Your task to perform on an android device: Add razer deathadder to the cart on walmart, then select checkout. Image 0: 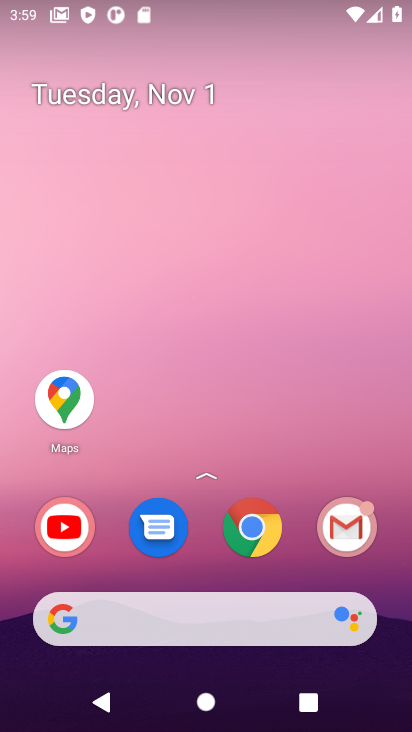
Step 0: click (178, 613)
Your task to perform on an android device: Add razer deathadder to the cart on walmart, then select checkout. Image 1: 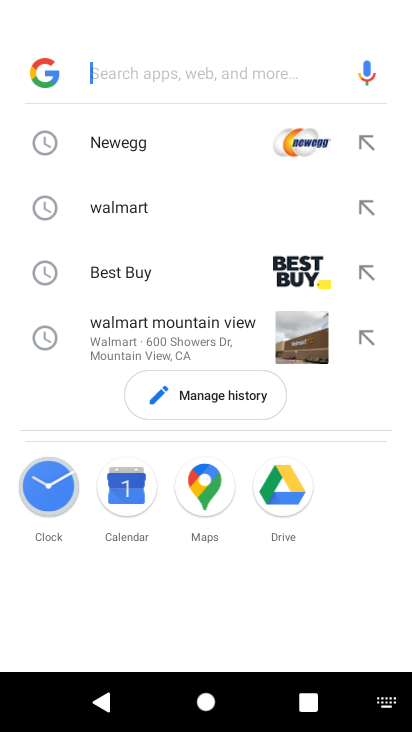
Step 1: click (141, 204)
Your task to perform on an android device: Add razer deathadder to the cart on walmart, then select checkout. Image 2: 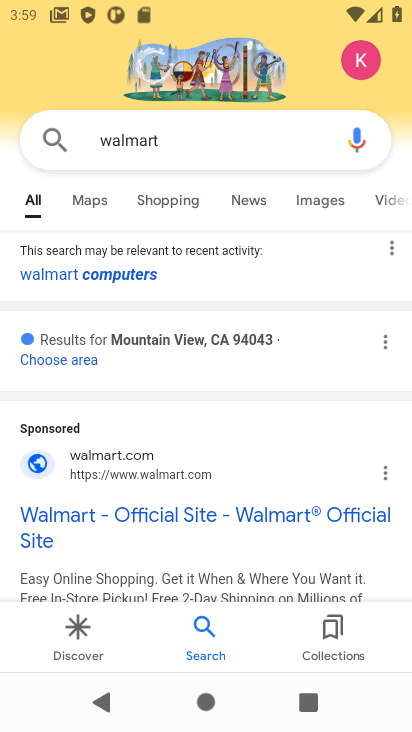
Step 2: click (114, 470)
Your task to perform on an android device: Add razer deathadder to the cart on walmart, then select checkout. Image 3: 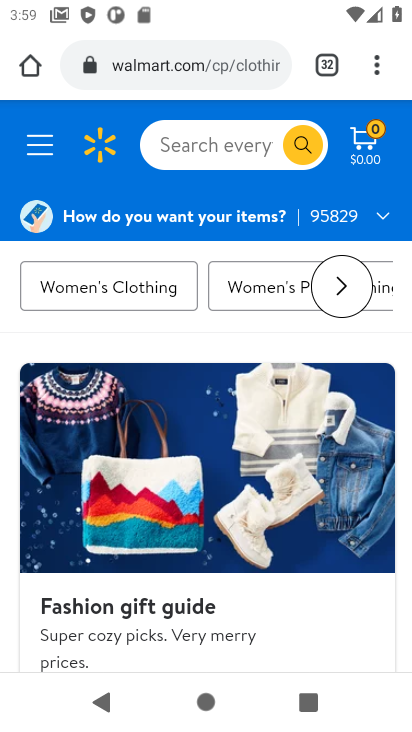
Step 3: click (195, 157)
Your task to perform on an android device: Add razer deathadder to the cart on walmart, then select checkout. Image 4: 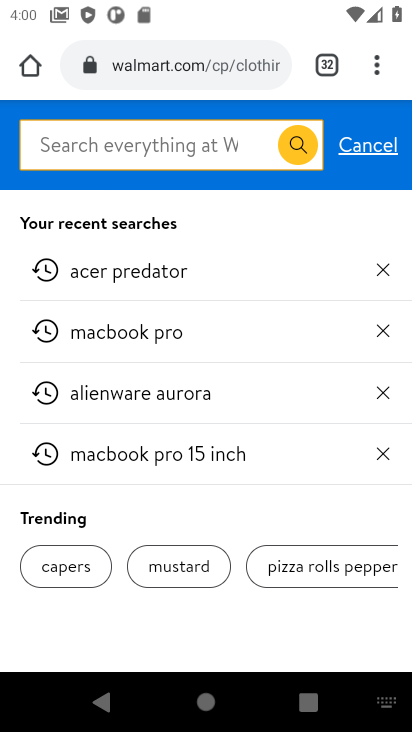
Step 4: type "razer deathadder "
Your task to perform on an android device: Add razer deathadder to the cart on walmart, then select checkout. Image 5: 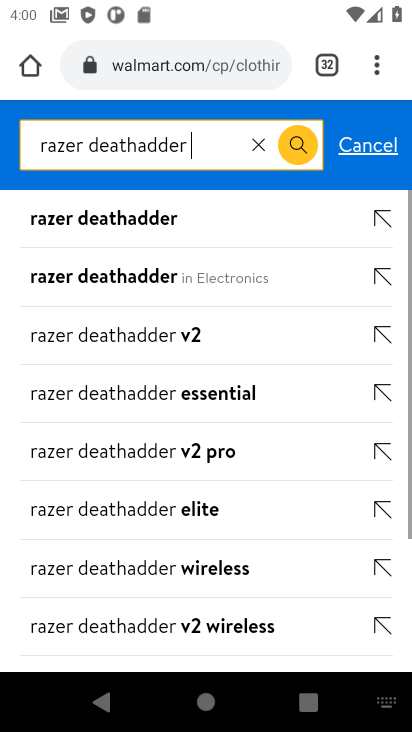
Step 5: click (145, 213)
Your task to perform on an android device: Add razer deathadder to the cart on walmart, then select checkout. Image 6: 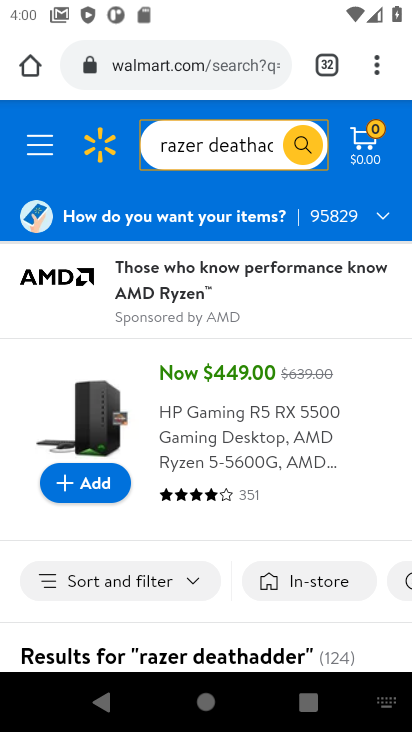
Step 6: click (90, 475)
Your task to perform on an android device: Add razer deathadder to the cart on walmart, then select checkout. Image 7: 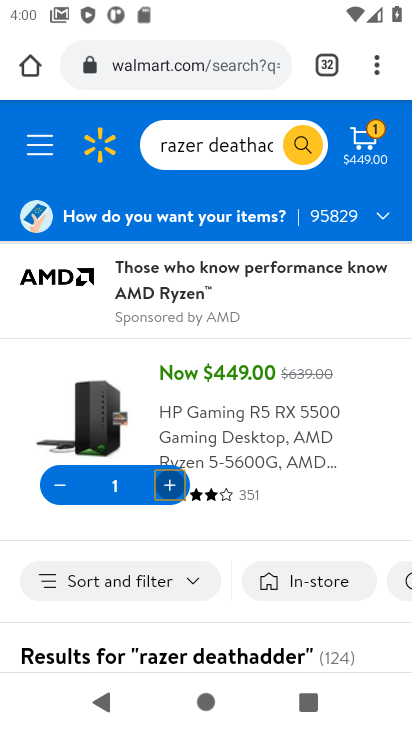
Step 7: click (374, 125)
Your task to perform on an android device: Add razer deathadder to the cart on walmart, then select checkout. Image 8: 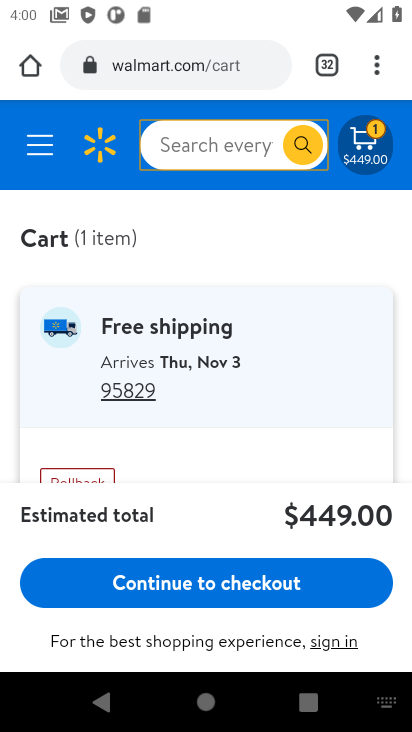
Step 8: click (207, 578)
Your task to perform on an android device: Add razer deathadder to the cart on walmart, then select checkout. Image 9: 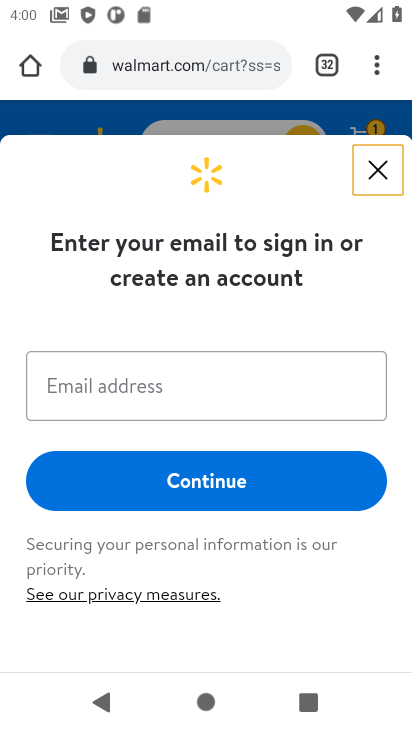
Step 9: task complete